Your task to perform on an android device: Open privacy settings Image 0: 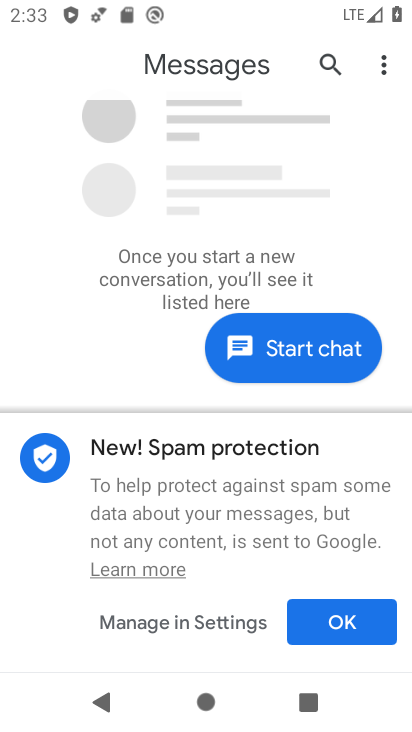
Step 0: press home button
Your task to perform on an android device: Open privacy settings Image 1: 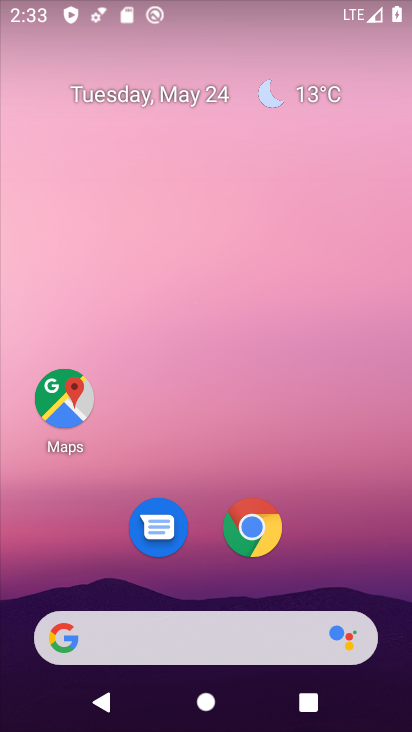
Step 1: drag from (206, 590) to (195, 70)
Your task to perform on an android device: Open privacy settings Image 2: 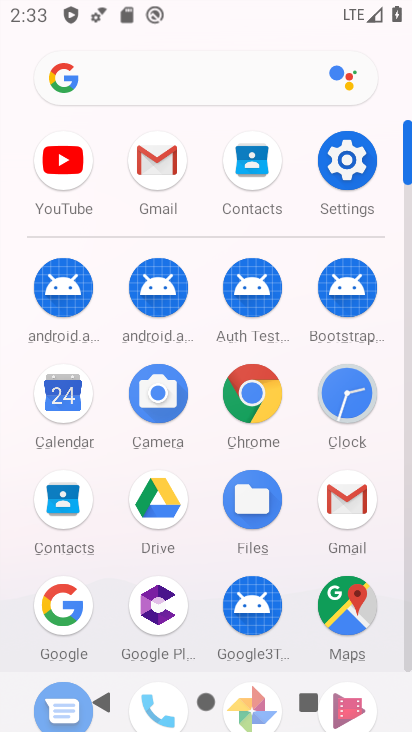
Step 2: click (340, 172)
Your task to perform on an android device: Open privacy settings Image 3: 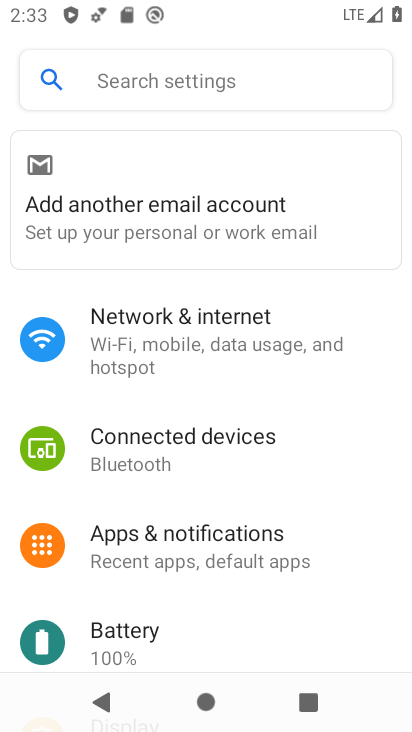
Step 3: drag from (138, 620) to (120, 344)
Your task to perform on an android device: Open privacy settings Image 4: 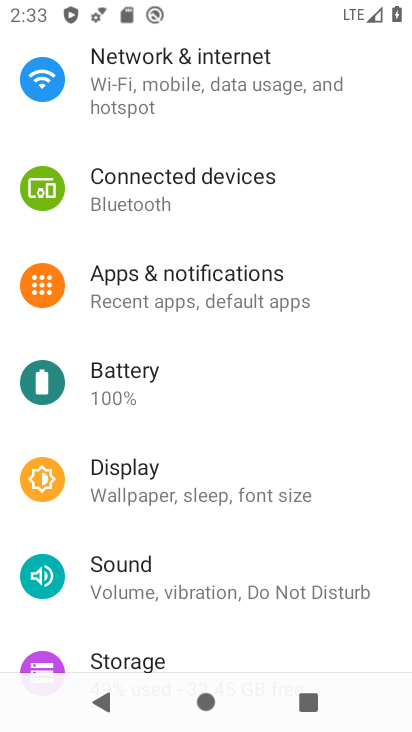
Step 4: drag from (170, 549) to (146, 297)
Your task to perform on an android device: Open privacy settings Image 5: 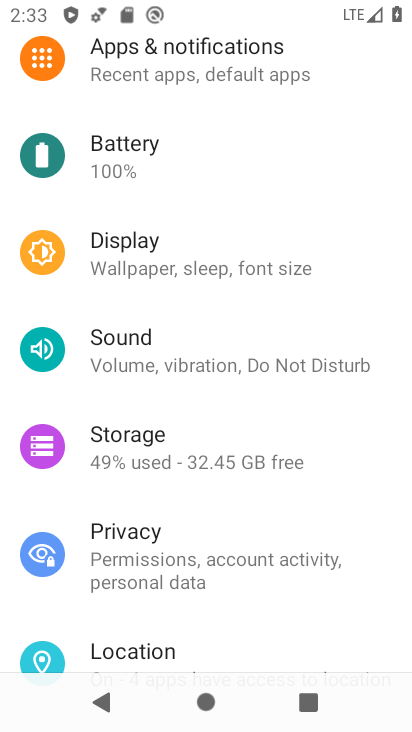
Step 5: click (214, 569)
Your task to perform on an android device: Open privacy settings Image 6: 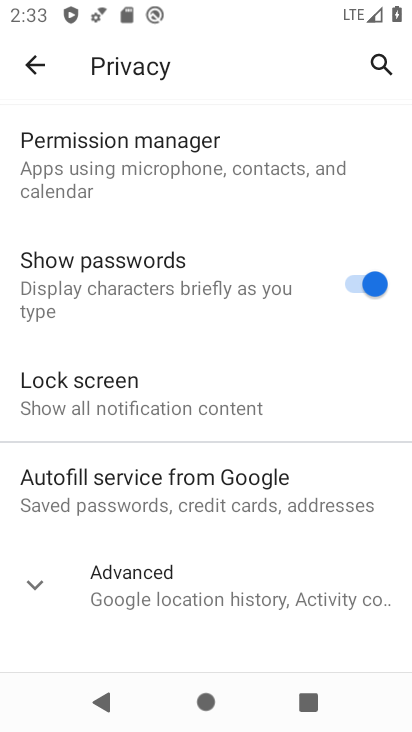
Step 6: task complete